Your task to perform on an android device: Find coffee shops on Maps Image 0: 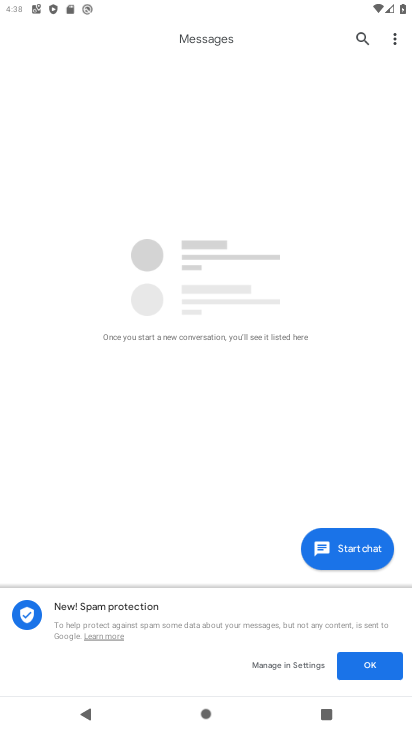
Step 0: press home button
Your task to perform on an android device: Find coffee shops on Maps Image 1: 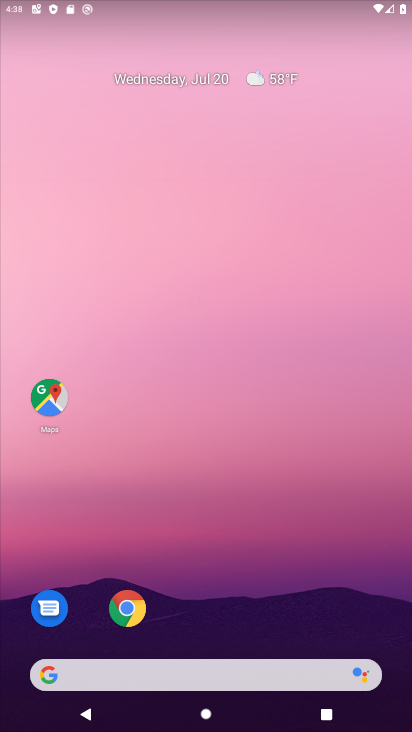
Step 1: drag from (220, 652) to (117, 9)
Your task to perform on an android device: Find coffee shops on Maps Image 2: 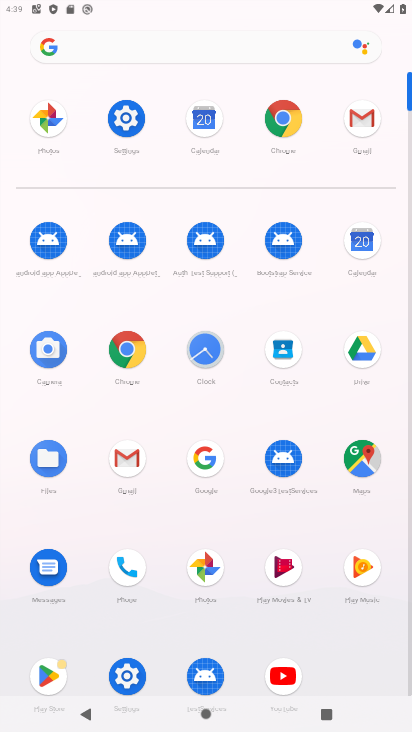
Step 2: click (359, 470)
Your task to perform on an android device: Find coffee shops on Maps Image 3: 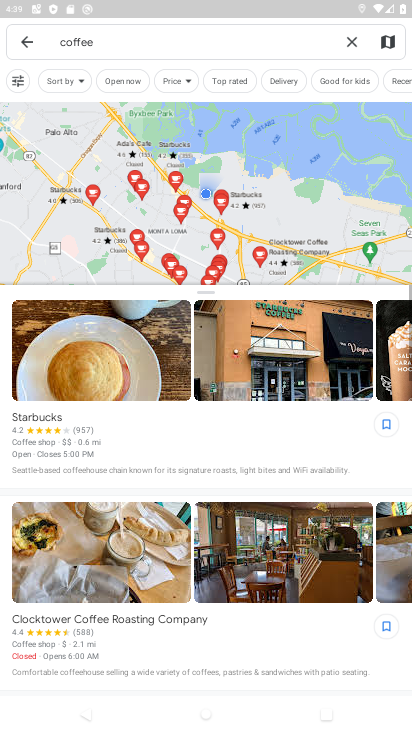
Step 3: task complete